Your task to perform on an android device: set the stopwatch Image 0: 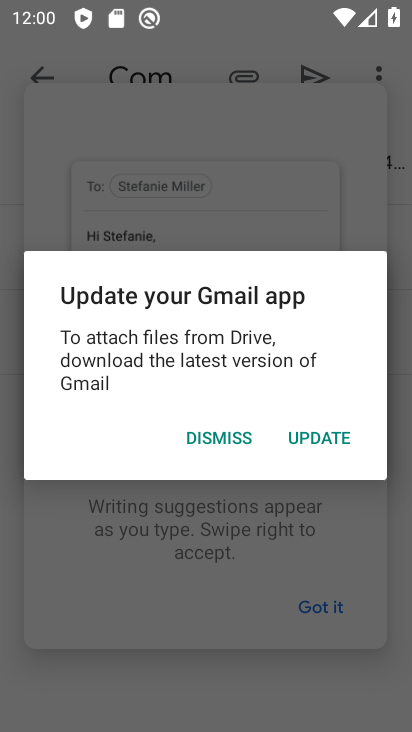
Step 0: click (215, 433)
Your task to perform on an android device: set the stopwatch Image 1: 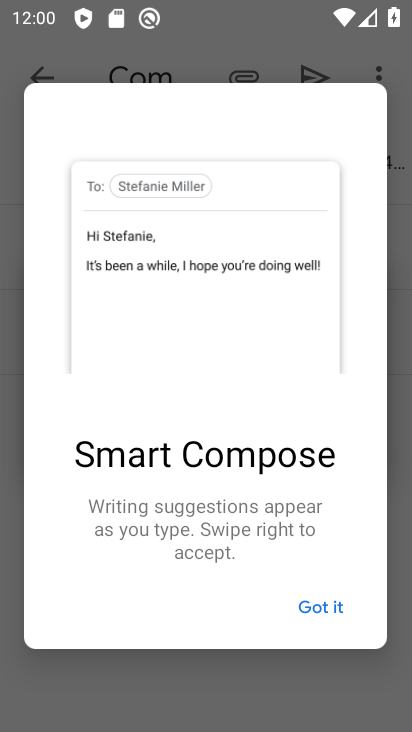
Step 1: click (333, 607)
Your task to perform on an android device: set the stopwatch Image 2: 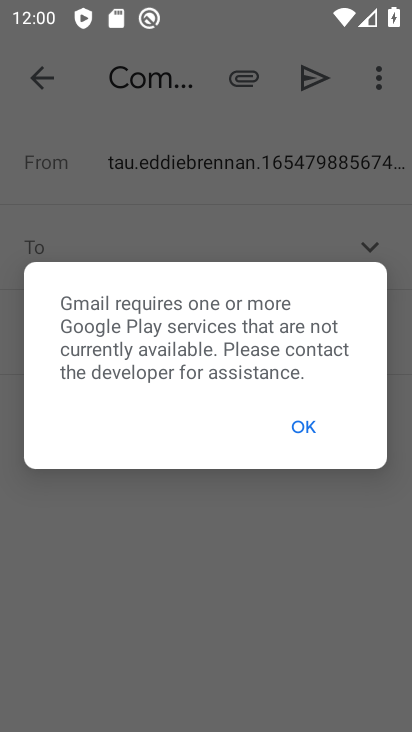
Step 2: click (296, 418)
Your task to perform on an android device: set the stopwatch Image 3: 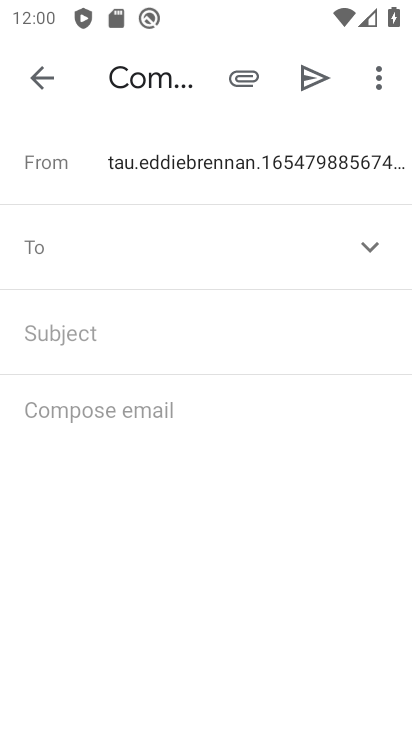
Step 3: press back button
Your task to perform on an android device: set the stopwatch Image 4: 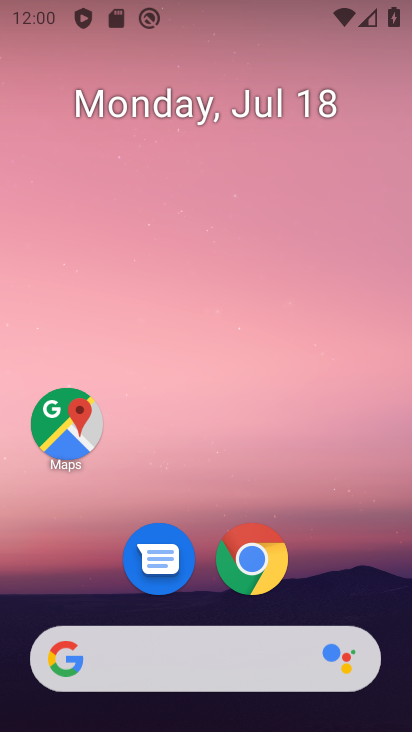
Step 4: drag from (172, 550) to (177, 109)
Your task to perform on an android device: set the stopwatch Image 5: 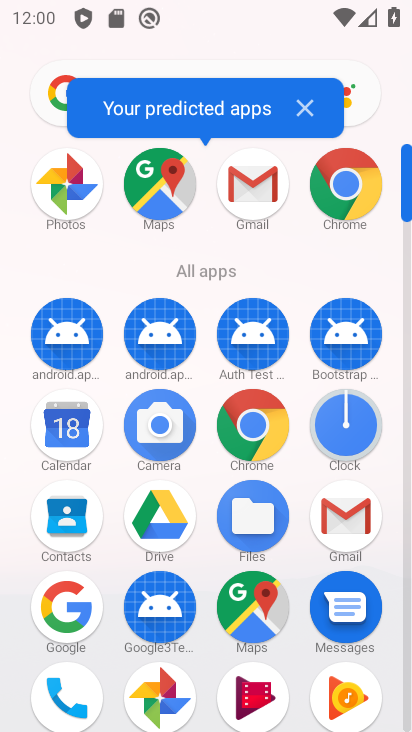
Step 5: click (367, 407)
Your task to perform on an android device: set the stopwatch Image 6: 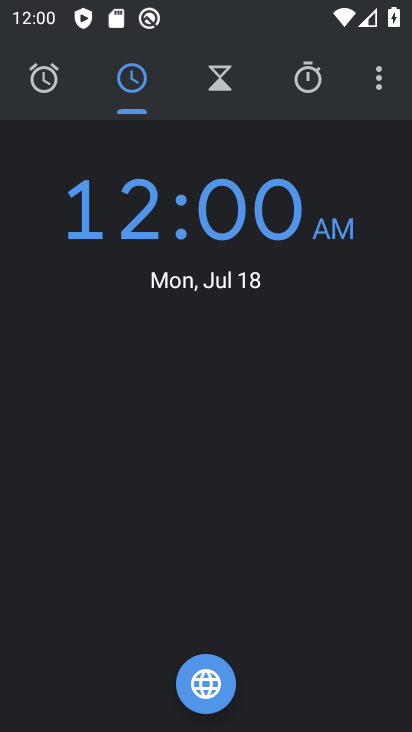
Step 6: click (300, 76)
Your task to perform on an android device: set the stopwatch Image 7: 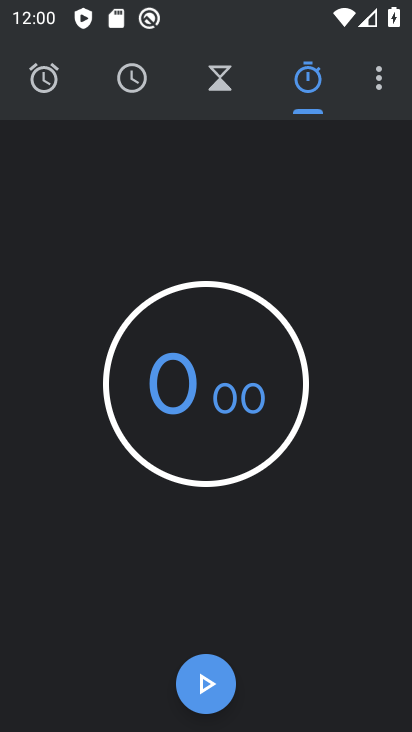
Step 7: click (210, 374)
Your task to perform on an android device: set the stopwatch Image 8: 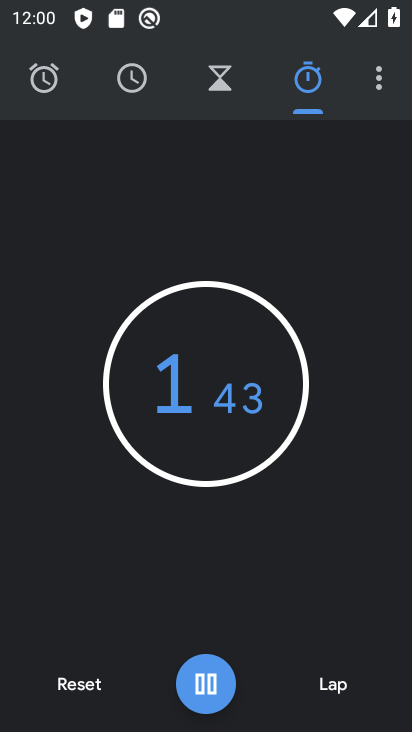
Step 8: click (205, 368)
Your task to perform on an android device: set the stopwatch Image 9: 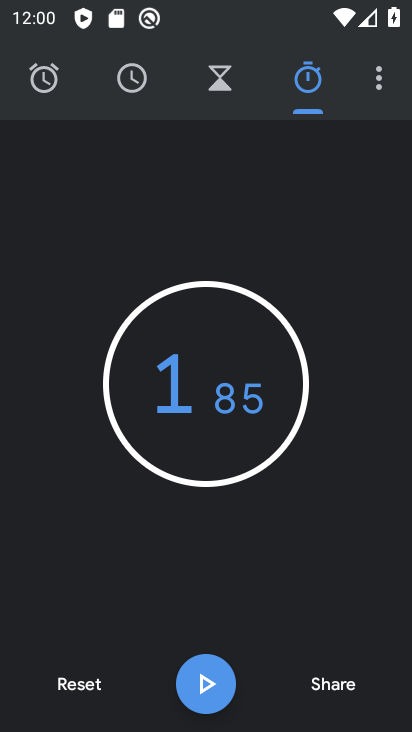
Step 9: task complete